Your task to perform on an android device: delete a single message in the gmail app Image 0: 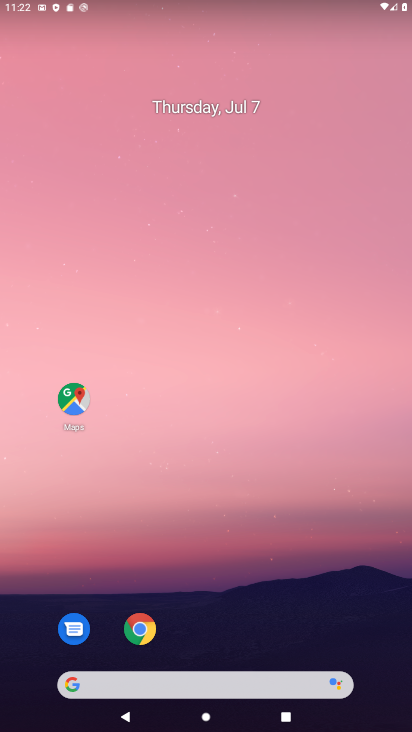
Step 0: drag from (333, 605) to (280, 192)
Your task to perform on an android device: delete a single message in the gmail app Image 1: 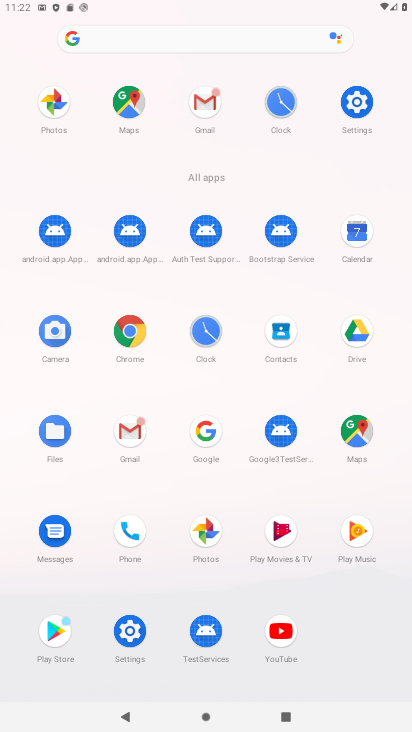
Step 1: click (132, 432)
Your task to perform on an android device: delete a single message in the gmail app Image 2: 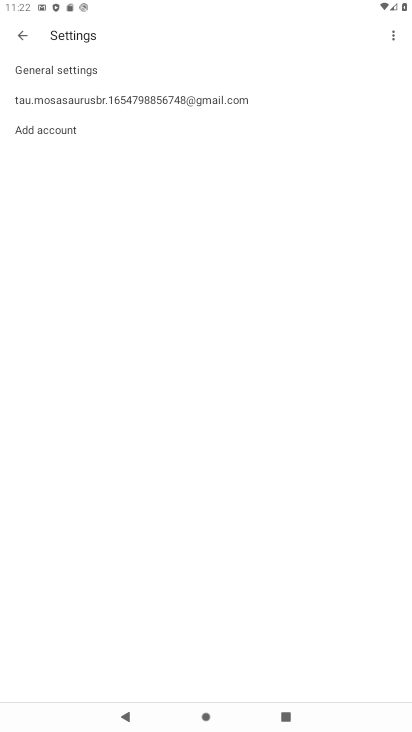
Step 2: press back button
Your task to perform on an android device: delete a single message in the gmail app Image 3: 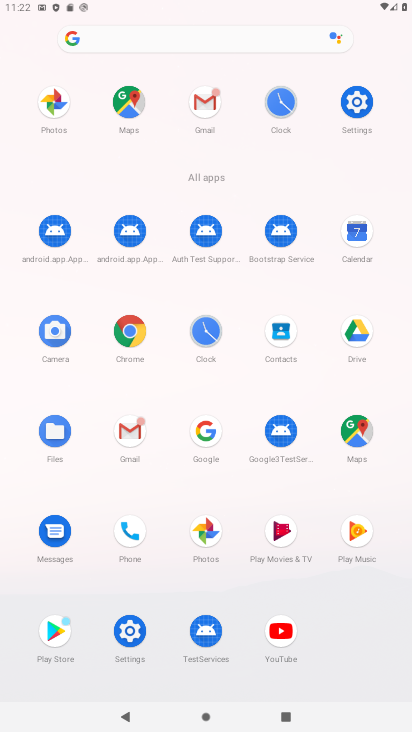
Step 3: click (129, 430)
Your task to perform on an android device: delete a single message in the gmail app Image 4: 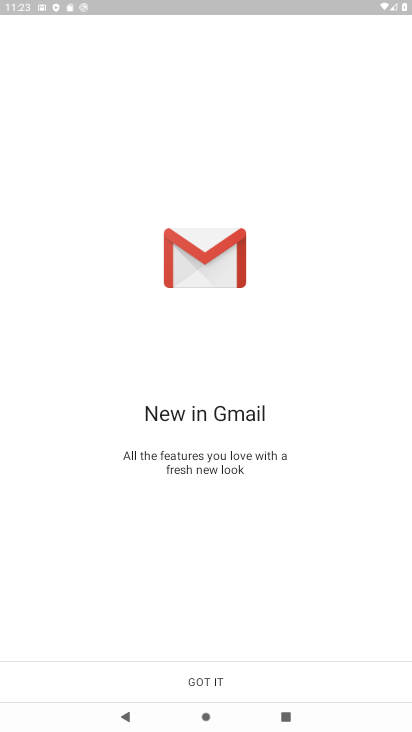
Step 4: click (206, 677)
Your task to perform on an android device: delete a single message in the gmail app Image 5: 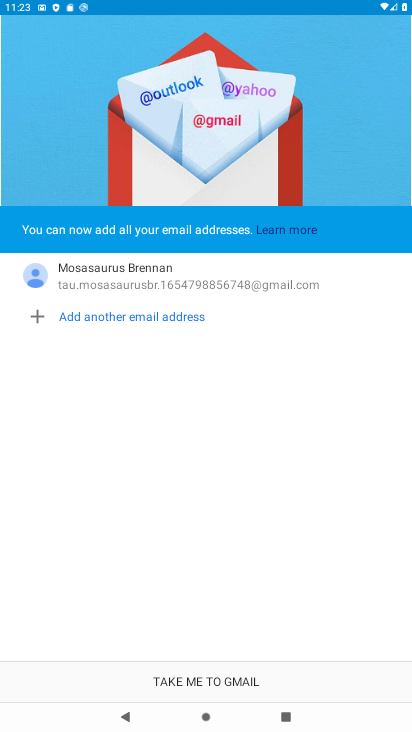
Step 5: click (194, 675)
Your task to perform on an android device: delete a single message in the gmail app Image 6: 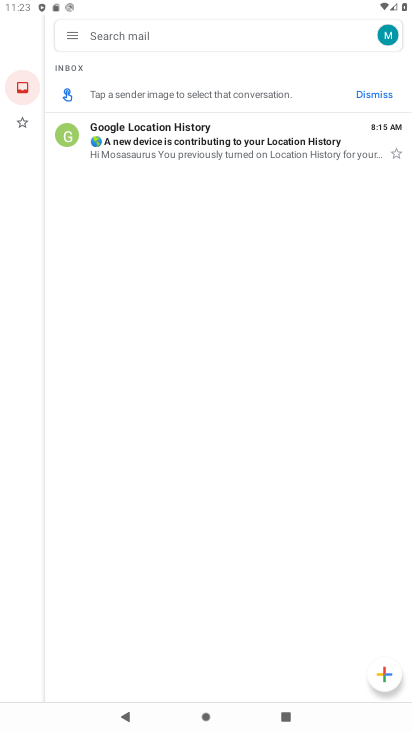
Step 6: click (181, 144)
Your task to perform on an android device: delete a single message in the gmail app Image 7: 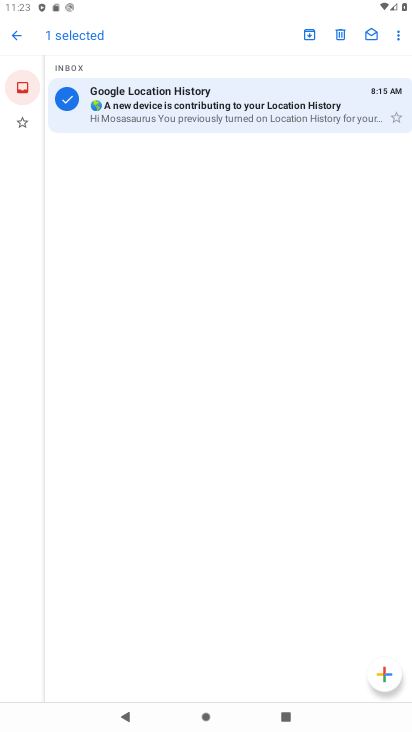
Step 7: click (339, 35)
Your task to perform on an android device: delete a single message in the gmail app Image 8: 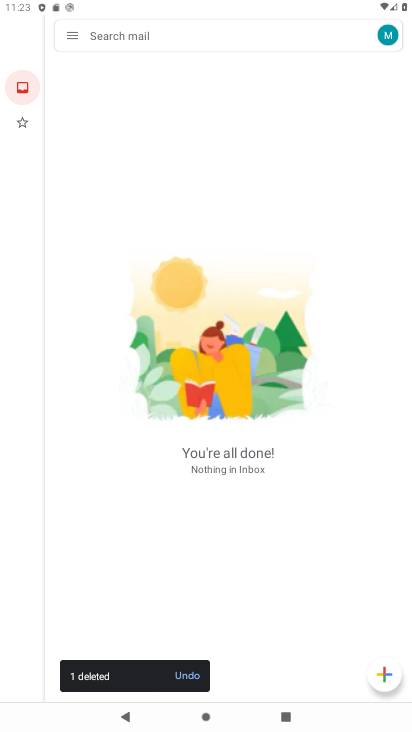
Step 8: task complete